Your task to perform on an android device: Go to Yahoo.com Image 0: 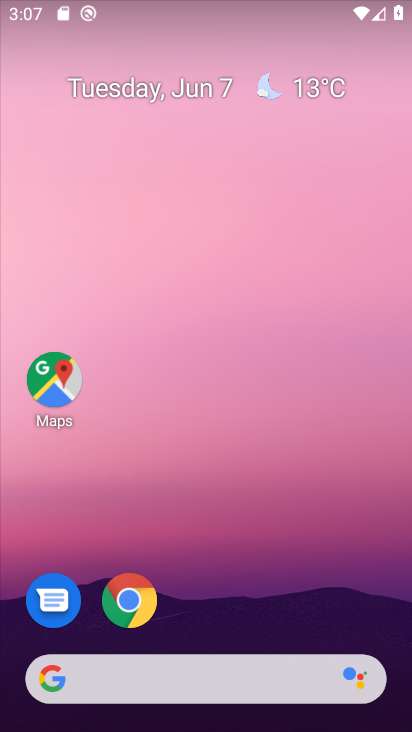
Step 0: click (124, 598)
Your task to perform on an android device: Go to Yahoo.com Image 1: 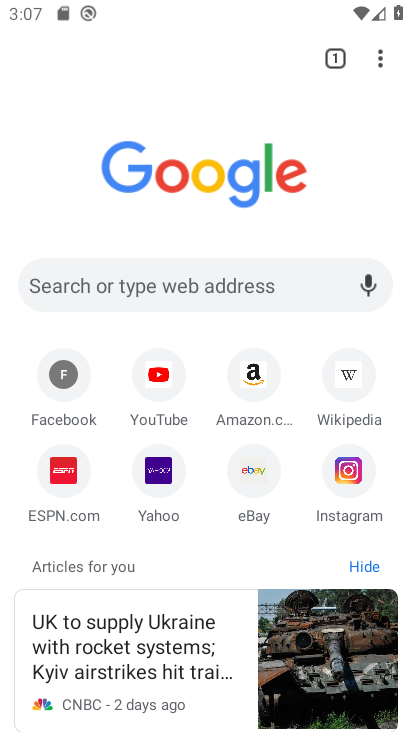
Step 1: click (167, 510)
Your task to perform on an android device: Go to Yahoo.com Image 2: 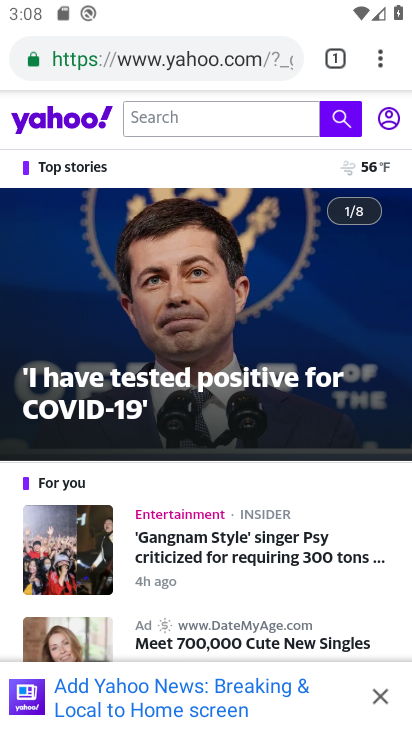
Step 2: task complete